Your task to perform on an android device: open app "DoorDash - Food Delivery" (install if not already installed) Image 0: 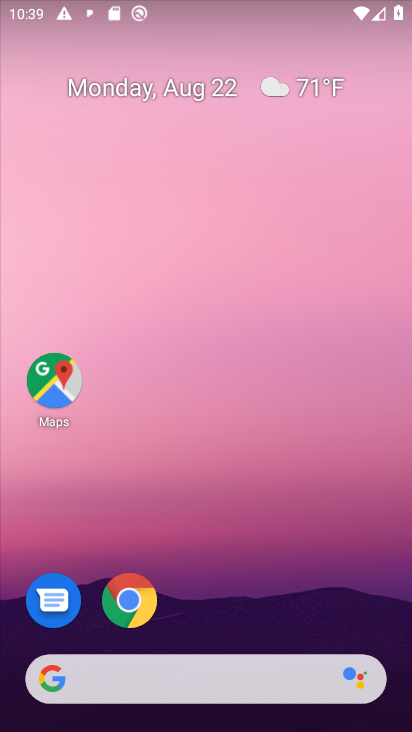
Step 0: drag from (239, 461) to (269, 161)
Your task to perform on an android device: open app "DoorDash - Food Delivery" (install if not already installed) Image 1: 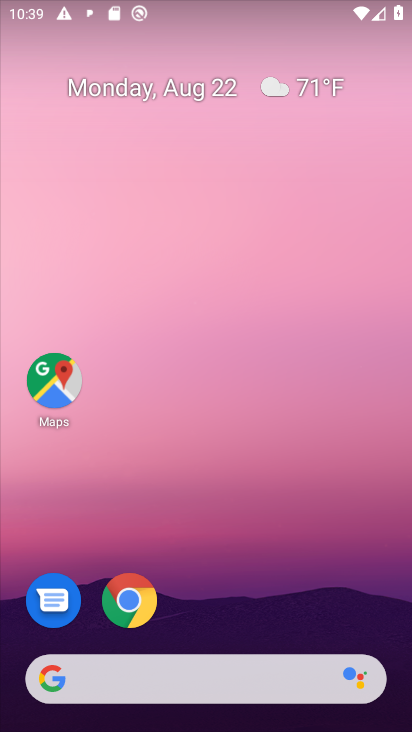
Step 1: drag from (185, 551) to (195, 12)
Your task to perform on an android device: open app "DoorDash - Food Delivery" (install if not already installed) Image 2: 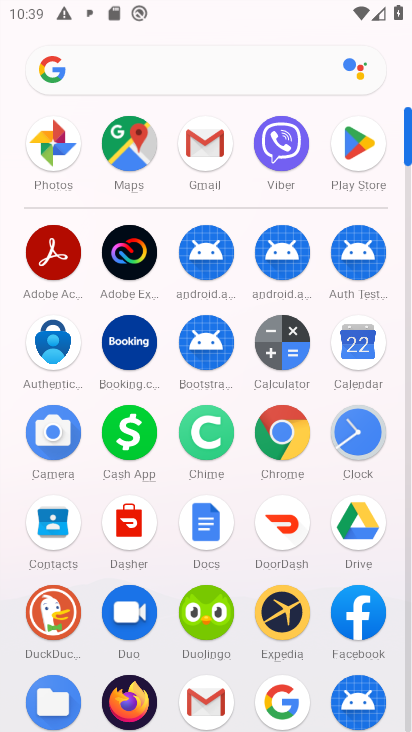
Step 2: click (356, 162)
Your task to perform on an android device: open app "DoorDash - Food Delivery" (install if not already installed) Image 3: 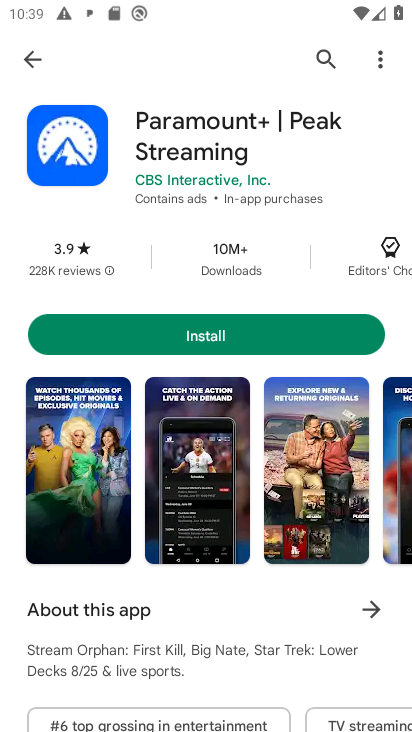
Step 3: click (319, 46)
Your task to perform on an android device: open app "DoorDash - Food Delivery" (install if not already installed) Image 4: 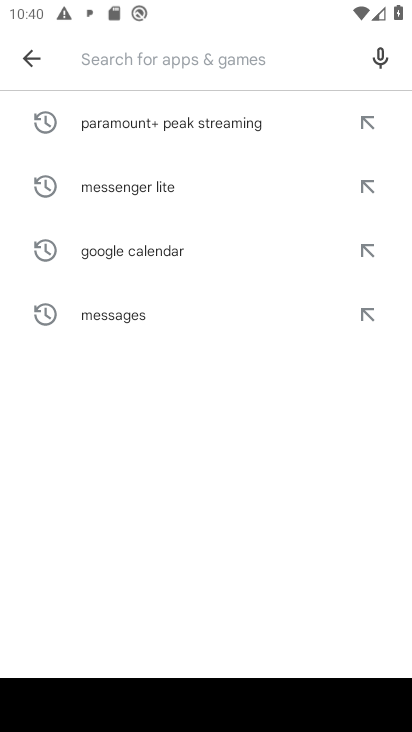
Step 4: type "DoorDash - Food Delivery"
Your task to perform on an android device: open app "DoorDash - Food Delivery" (install if not already installed) Image 5: 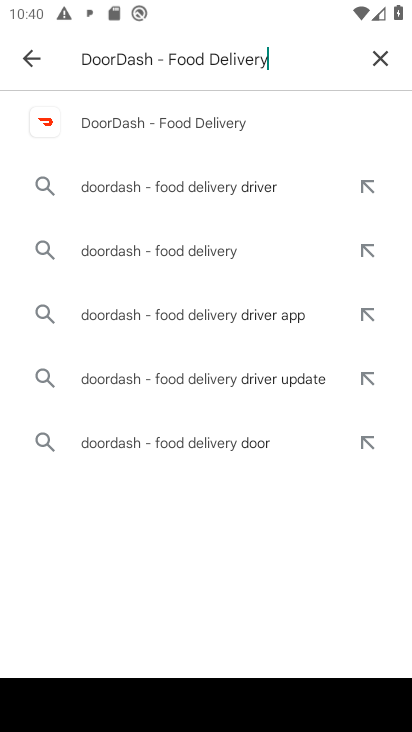
Step 5: click (122, 117)
Your task to perform on an android device: open app "DoorDash - Food Delivery" (install if not already installed) Image 6: 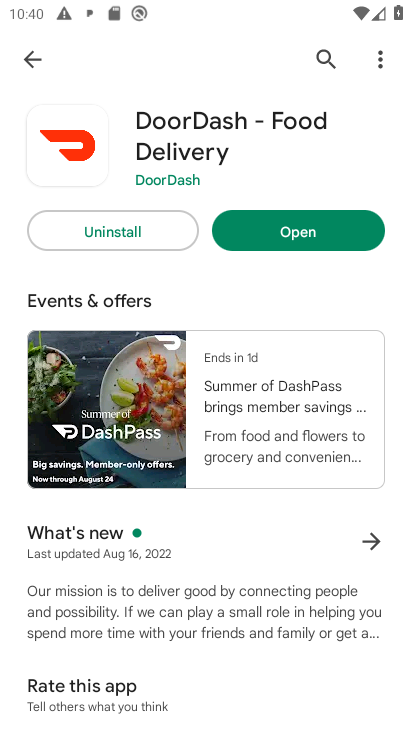
Step 6: click (286, 223)
Your task to perform on an android device: open app "DoorDash - Food Delivery" (install if not already installed) Image 7: 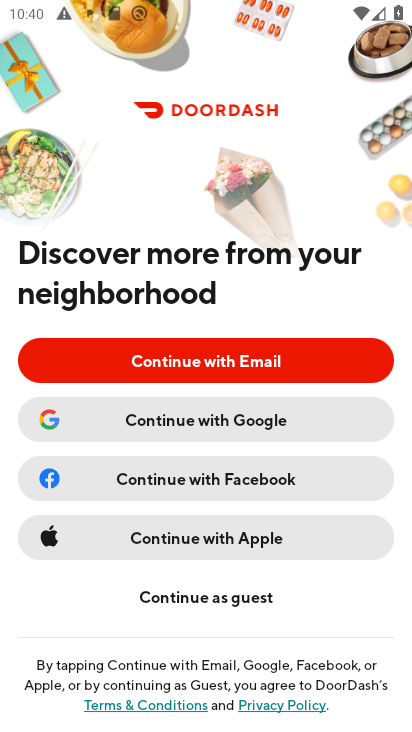
Step 7: task complete